Your task to perform on an android device: Open internet settings Image 0: 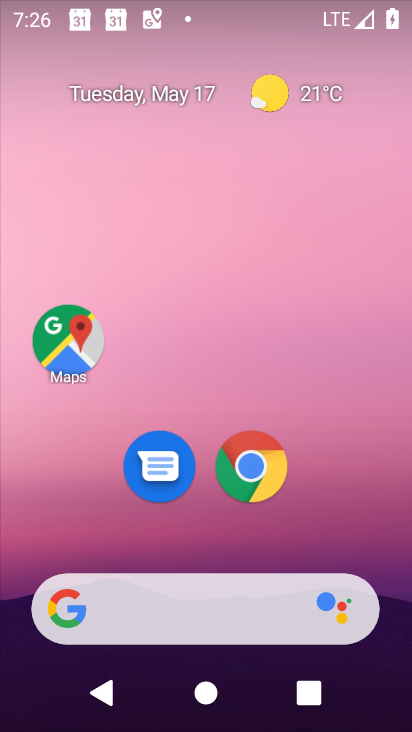
Step 0: press home button
Your task to perform on an android device: Open internet settings Image 1: 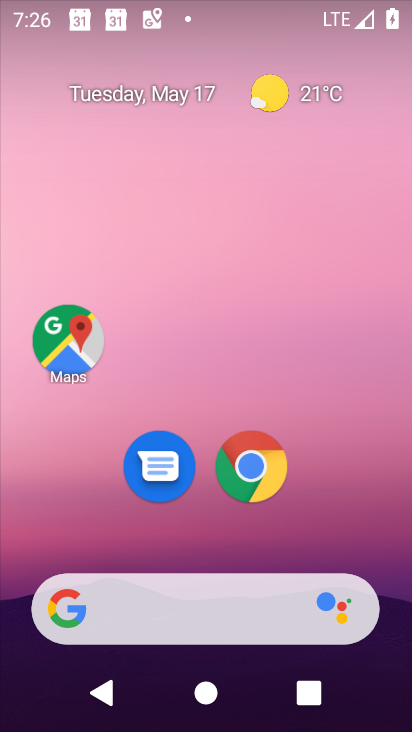
Step 1: click (325, 117)
Your task to perform on an android device: Open internet settings Image 2: 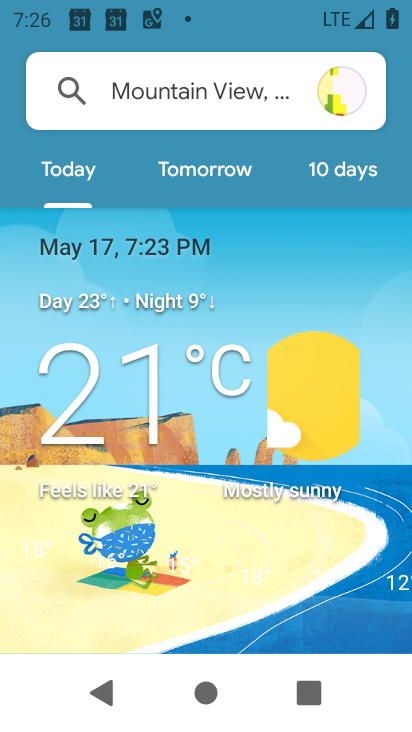
Step 2: press home button
Your task to perform on an android device: Open internet settings Image 3: 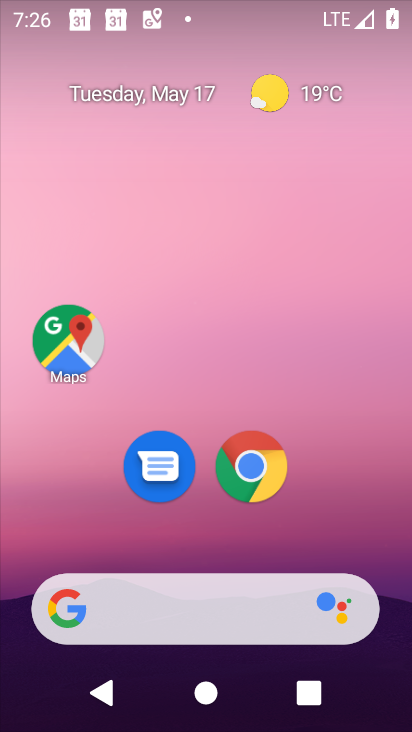
Step 3: drag from (211, 533) to (356, 52)
Your task to perform on an android device: Open internet settings Image 4: 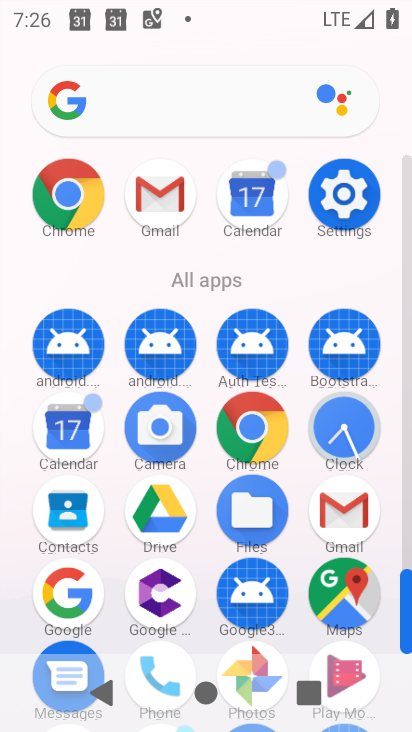
Step 4: click (346, 212)
Your task to perform on an android device: Open internet settings Image 5: 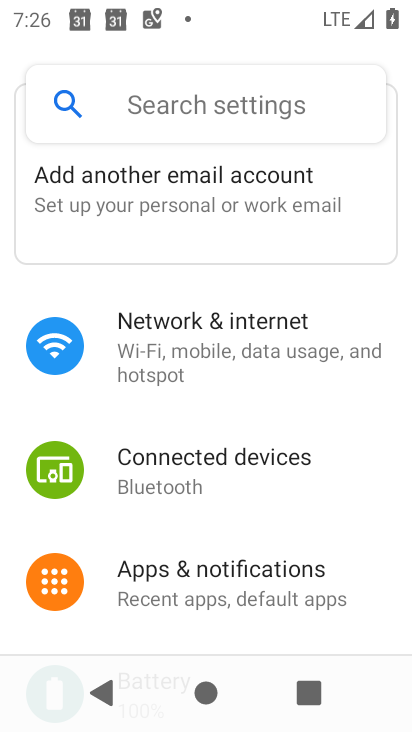
Step 5: click (243, 324)
Your task to perform on an android device: Open internet settings Image 6: 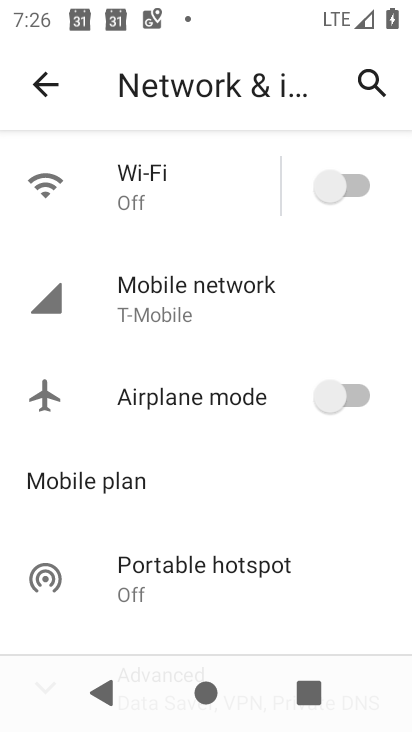
Step 6: task complete